Your task to perform on an android device: check data usage Image 0: 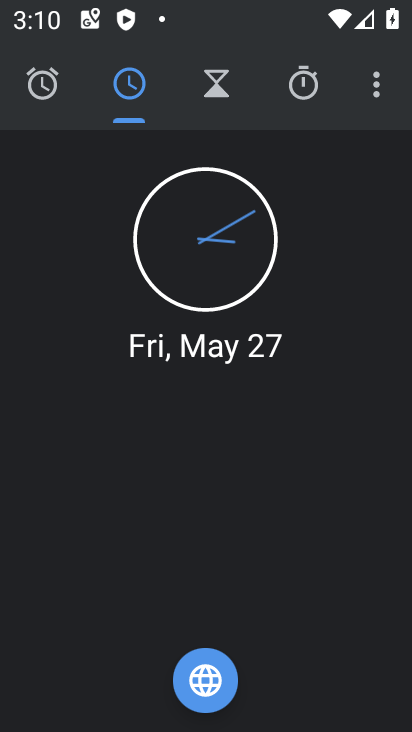
Step 0: press home button
Your task to perform on an android device: check data usage Image 1: 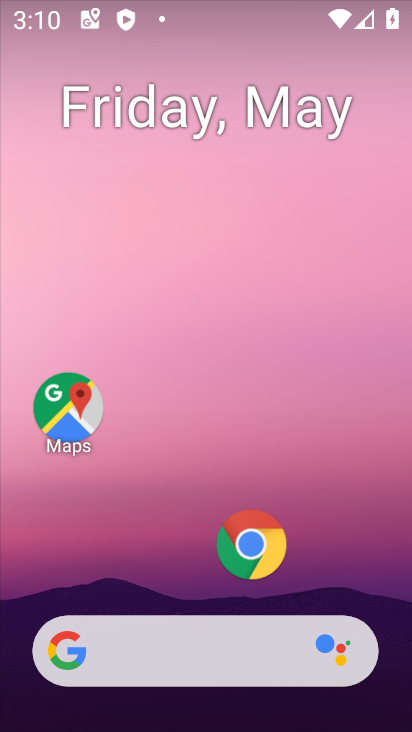
Step 1: drag from (177, 581) to (179, 246)
Your task to perform on an android device: check data usage Image 2: 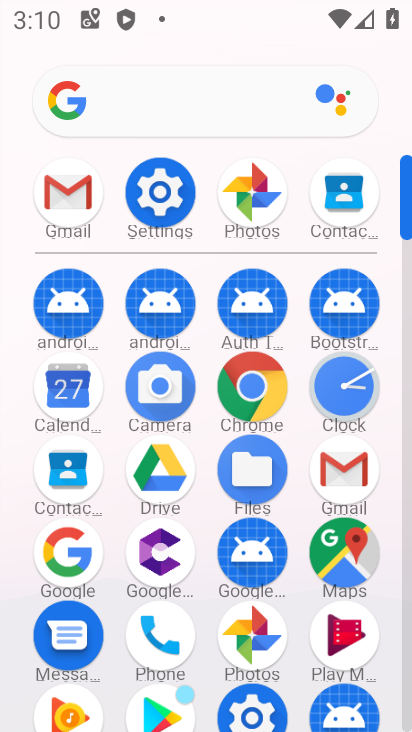
Step 2: click (161, 199)
Your task to perform on an android device: check data usage Image 3: 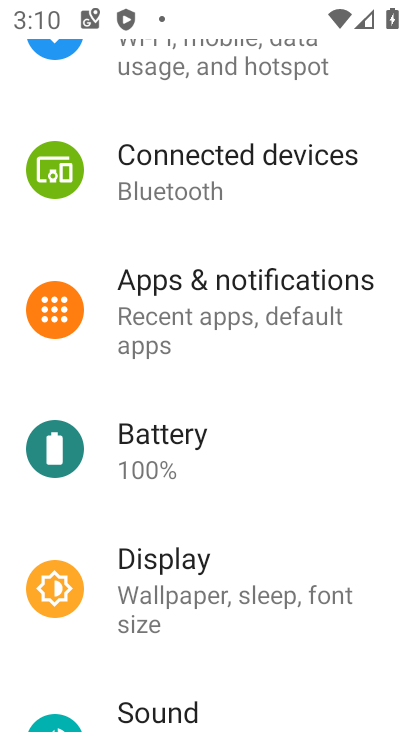
Step 3: drag from (240, 226) to (239, 627)
Your task to perform on an android device: check data usage Image 4: 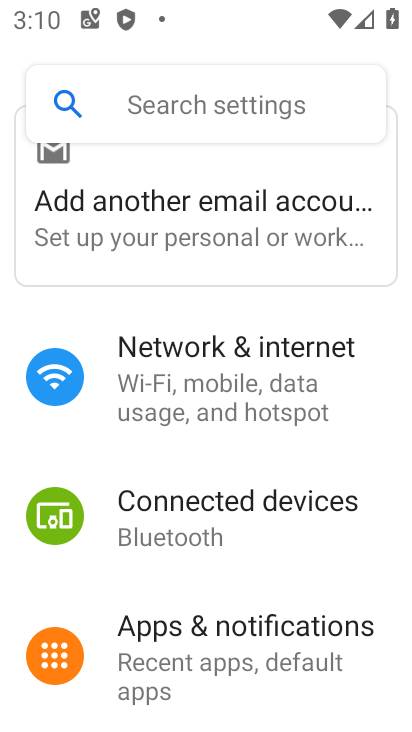
Step 4: click (220, 368)
Your task to perform on an android device: check data usage Image 5: 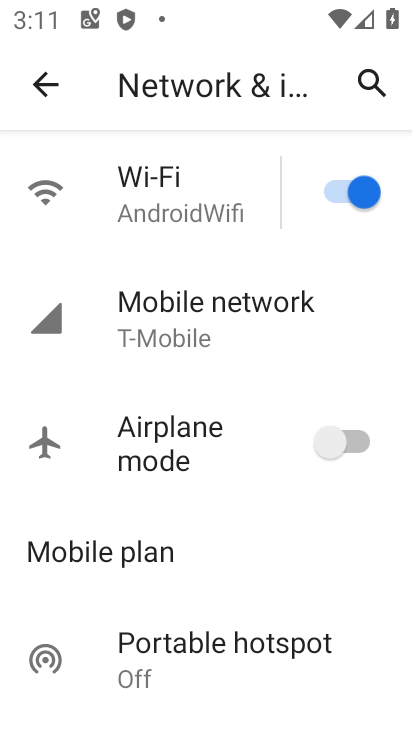
Step 5: click (155, 314)
Your task to perform on an android device: check data usage Image 6: 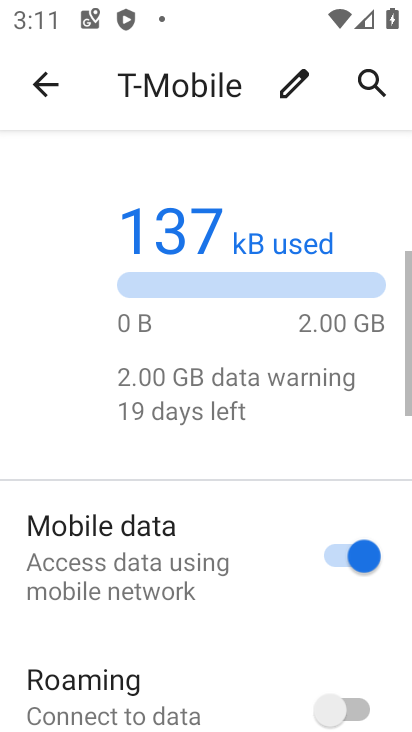
Step 6: drag from (155, 639) to (190, 249)
Your task to perform on an android device: check data usage Image 7: 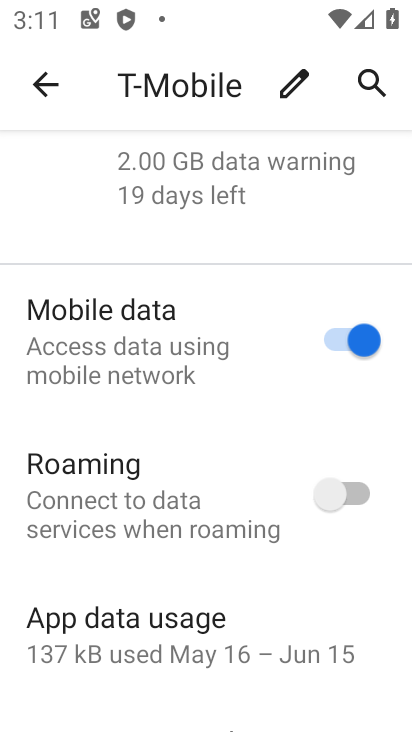
Step 7: click (186, 622)
Your task to perform on an android device: check data usage Image 8: 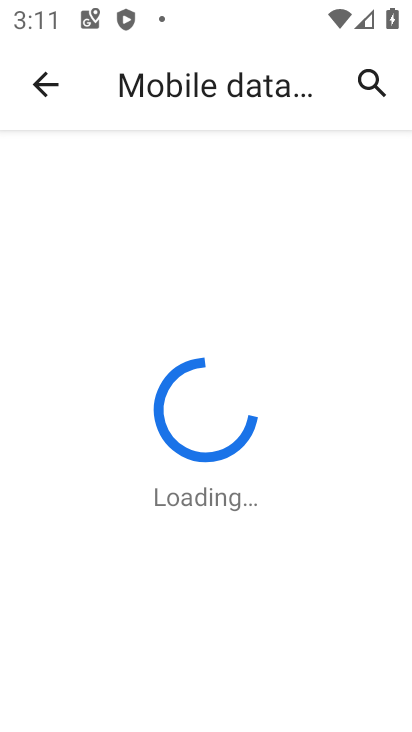
Step 8: task complete